Your task to perform on an android device: turn off priority inbox in the gmail app Image 0: 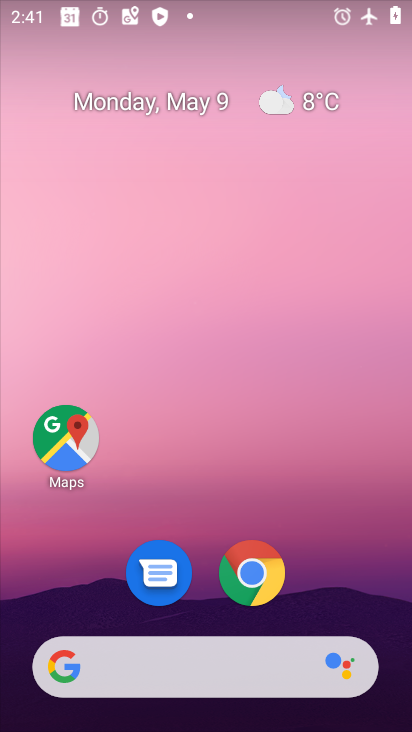
Step 0: drag from (158, 648) to (319, 89)
Your task to perform on an android device: turn off priority inbox in the gmail app Image 1: 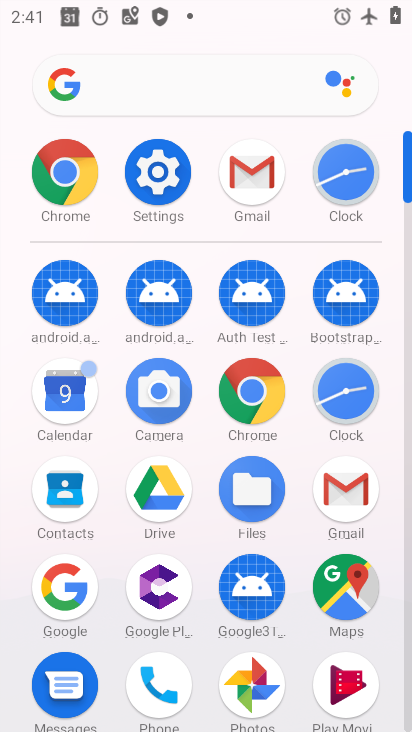
Step 1: click (257, 185)
Your task to perform on an android device: turn off priority inbox in the gmail app Image 2: 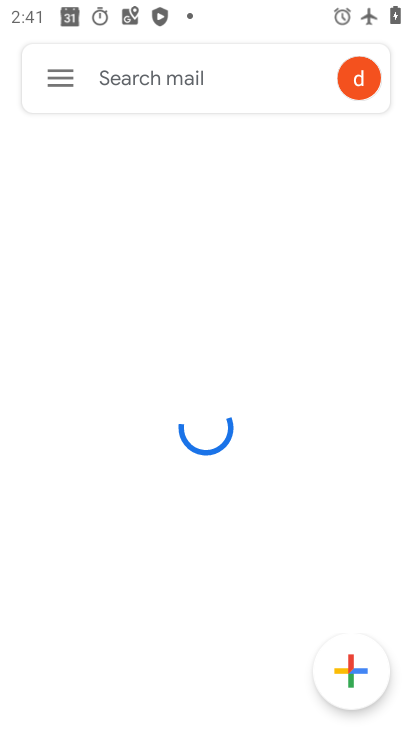
Step 2: click (73, 85)
Your task to perform on an android device: turn off priority inbox in the gmail app Image 3: 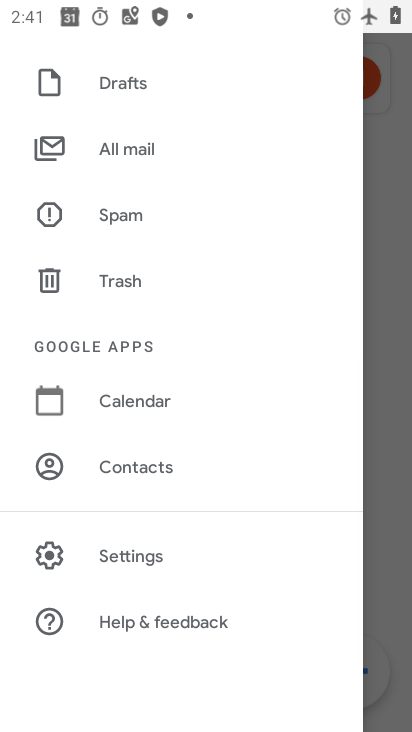
Step 3: click (131, 557)
Your task to perform on an android device: turn off priority inbox in the gmail app Image 4: 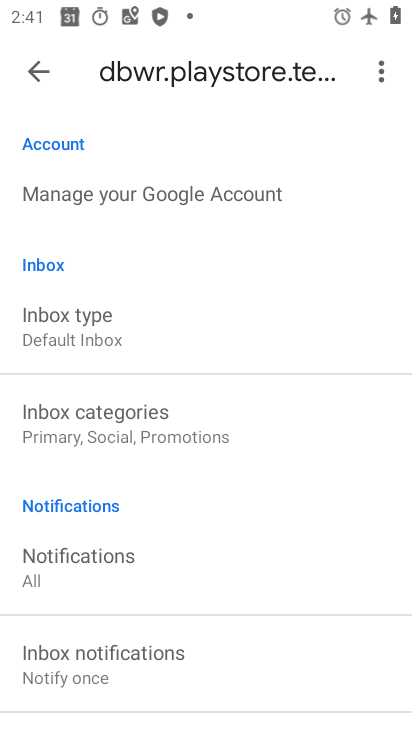
Step 4: click (100, 319)
Your task to perform on an android device: turn off priority inbox in the gmail app Image 5: 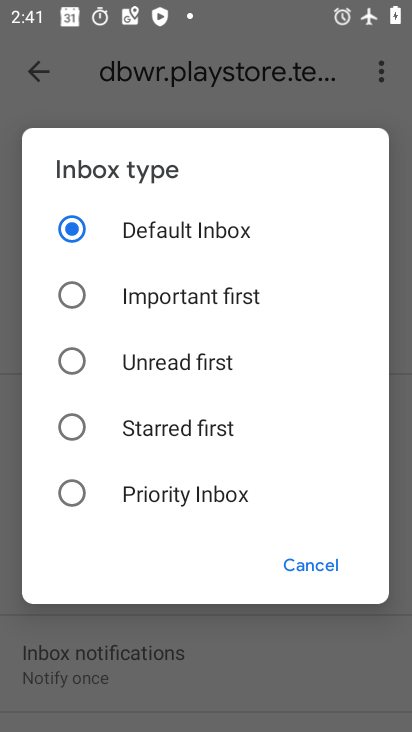
Step 5: task complete